Your task to perform on an android device: Go to Google maps Image 0: 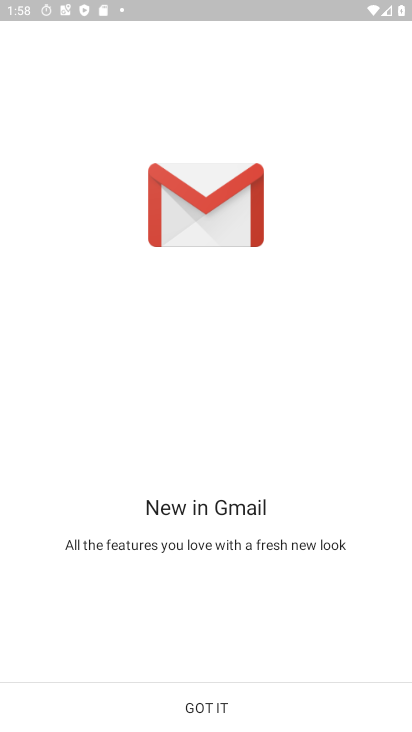
Step 0: drag from (242, 676) to (195, 290)
Your task to perform on an android device: Go to Google maps Image 1: 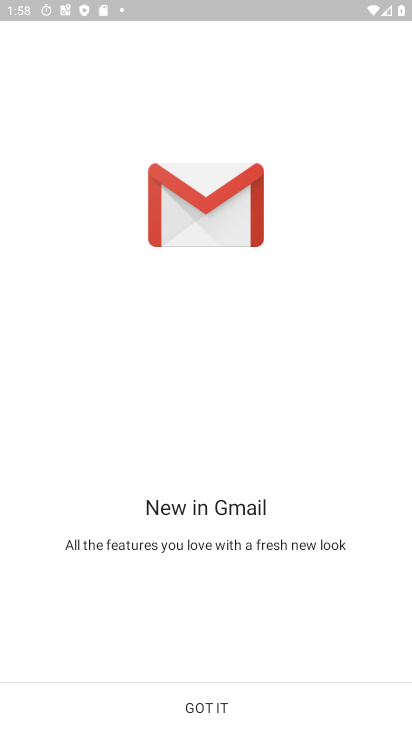
Step 1: press home button
Your task to perform on an android device: Go to Google maps Image 2: 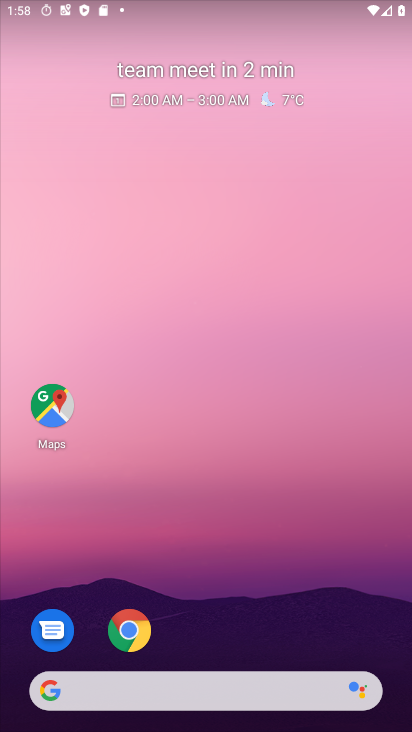
Step 2: drag from (238, 681) to (224, 282)
Your task to perform on an android device: Go to Google maps Image 3: 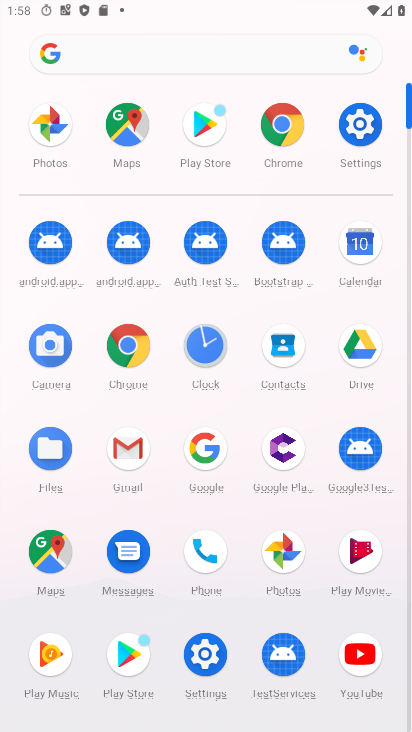
Step 3: click (56, 558)
Your task to perform on an android device: Go to Google maps Image 4: 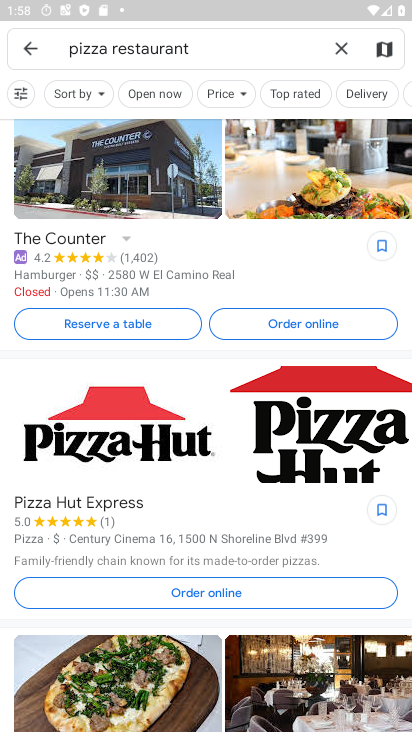
Step 4: click (337, 52)
Your task to perform on an android device: Go to Google maps Image 5: 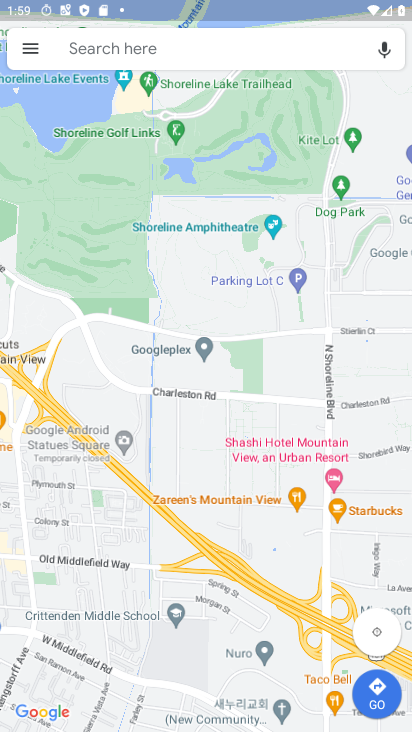
Step 5: task complete